Your task to perform on an android device: Open network settings Image 0: 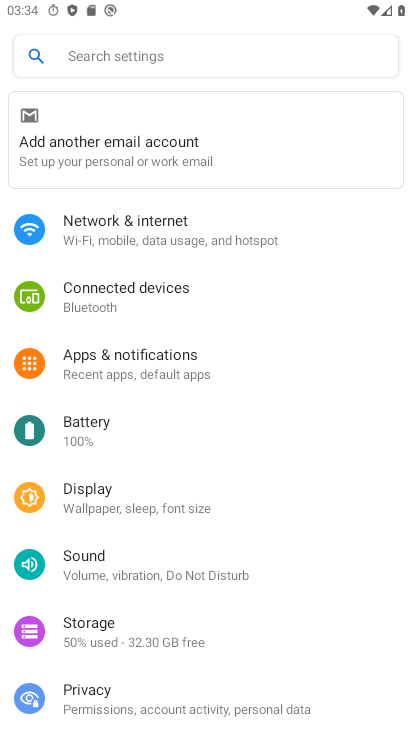
Step 0: task complete